Your task to perform on an android device: Turn on the flashlight Image 0: 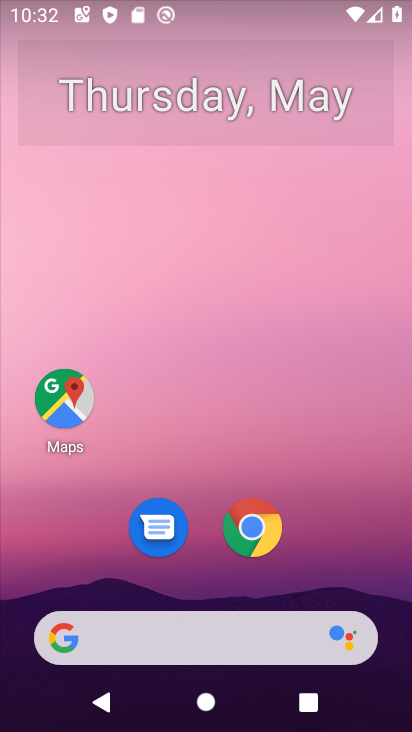
Step 0: drag from (302, 4) to (316, 434)
Your task to perform on an android device: Turn on the flashlight Image 1: 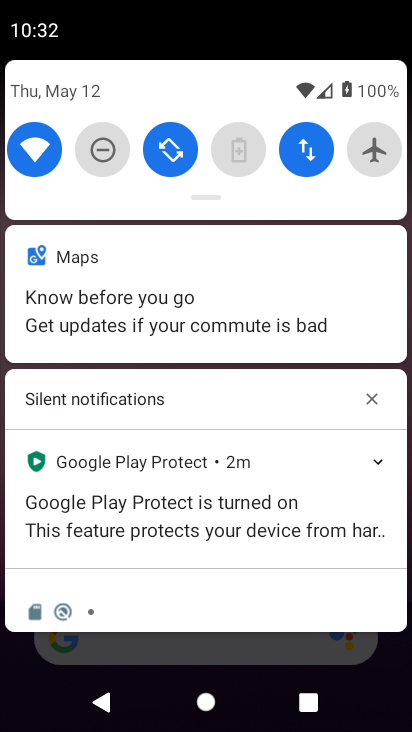
Step 1: task complete